Your task to perform on an android device: Open the calendar and show me this week's events? Image 0: 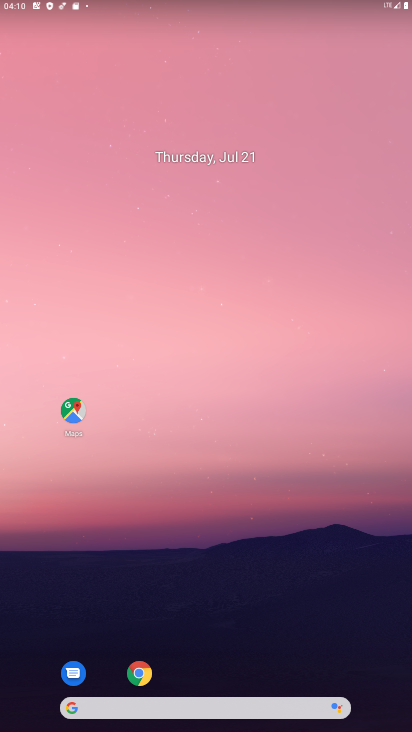
Step 0: drag from (313, 595) to (287, 42)
Your task to perform on an android device: Open the calendar and show me this week's events? Image 1: 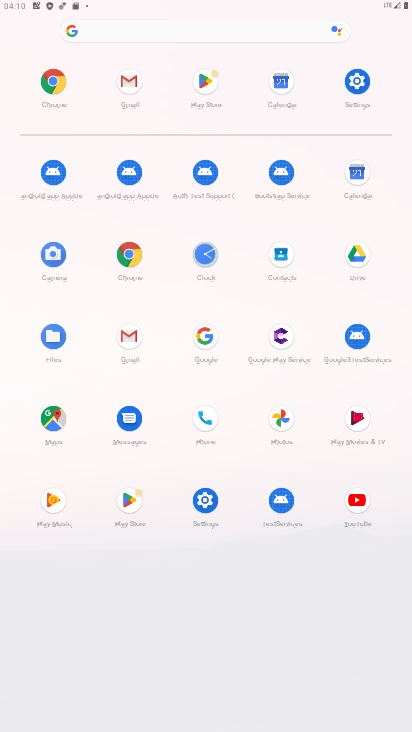
Step 1: click (359, 162)
Your task to perform on an android device: Open the calendar and show me this week's events? Image 2: 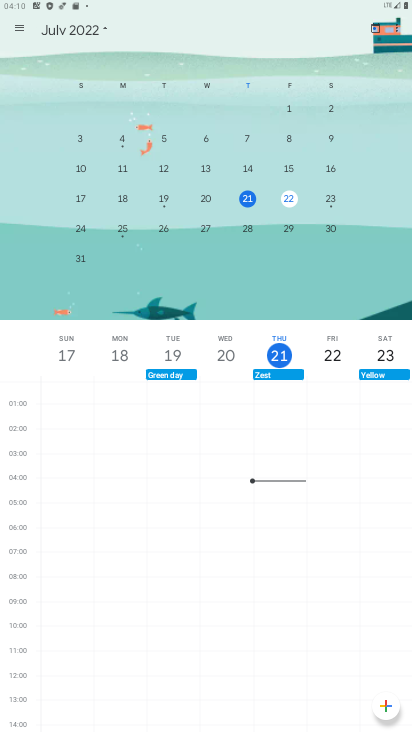
Step 2: task complete